Your task to perform on an android device: Add "razer deathadder" to the cart on ebay, then select checkout. Image 0: 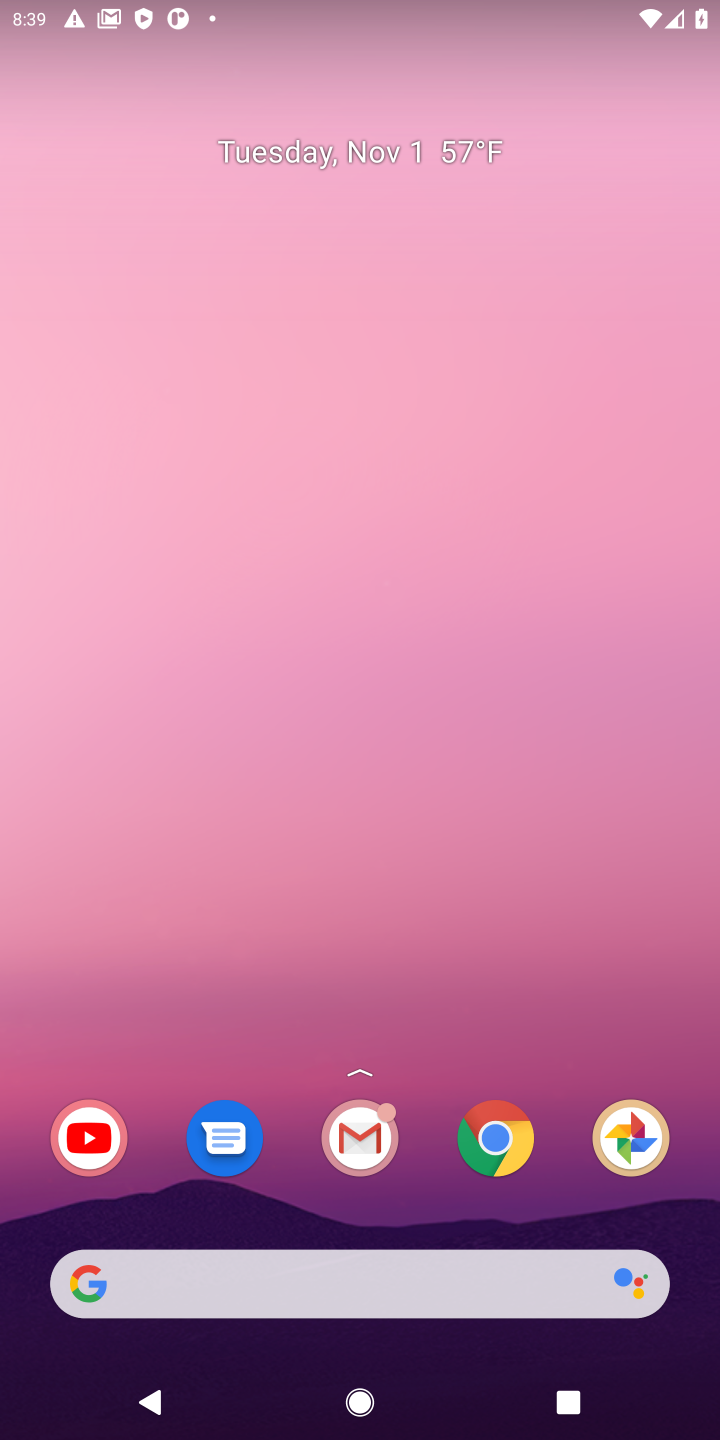
Step 0: click (498, 1128)
Your task to perform on an android device: Add "razer deathadder" to the cart on ebay, then select checkout. Image 1: 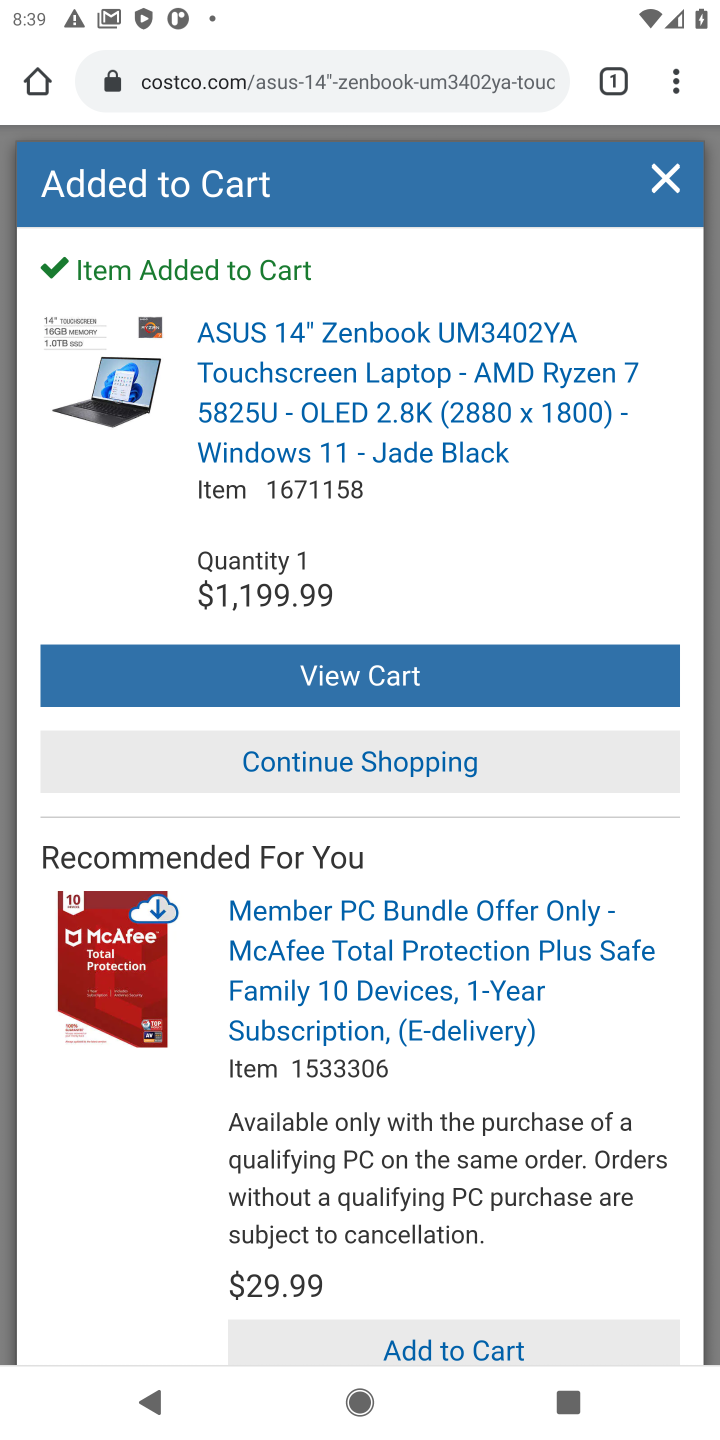
Step 1: click (273, 65)
Your task to perform on an android device: Add "razer deathadder" to the cart on ebay, then select checkout. Image 2: 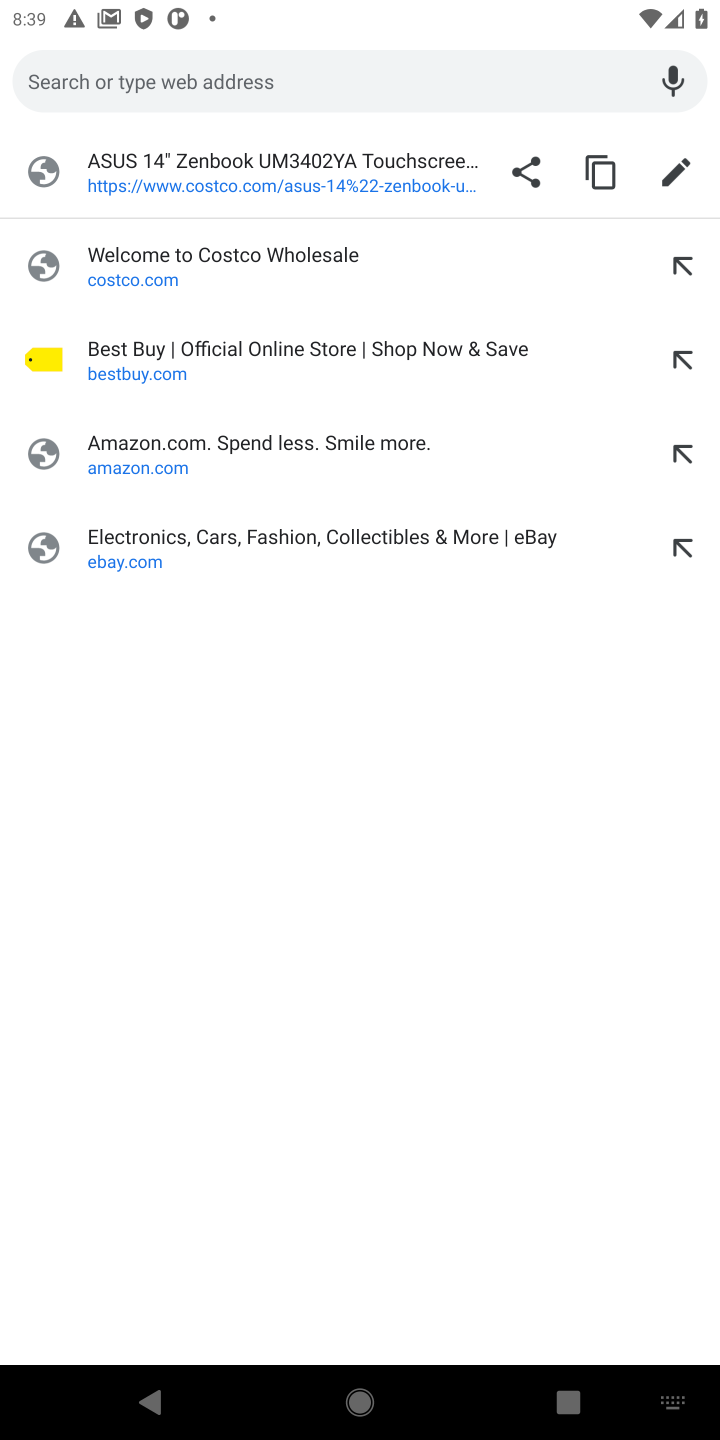
Step 2: click (111, 573)
Your task to perform on an android device: Add "razer deathadder" to the cart on ebay, then select checkout. Image 3: 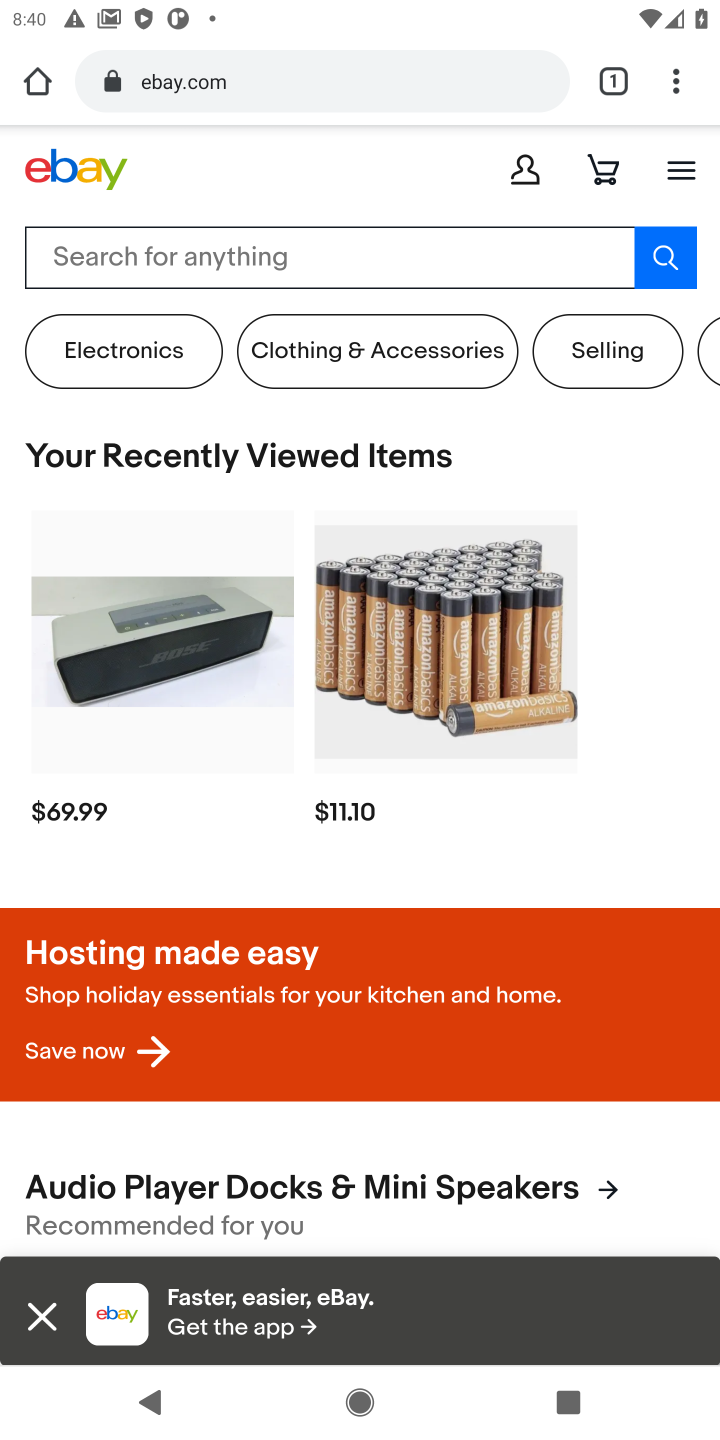
Step 3: click (307, 255)
Your task to perform on an android device: Add "razer deathadder" to the cart on ebay, then select checkout. Image 4: 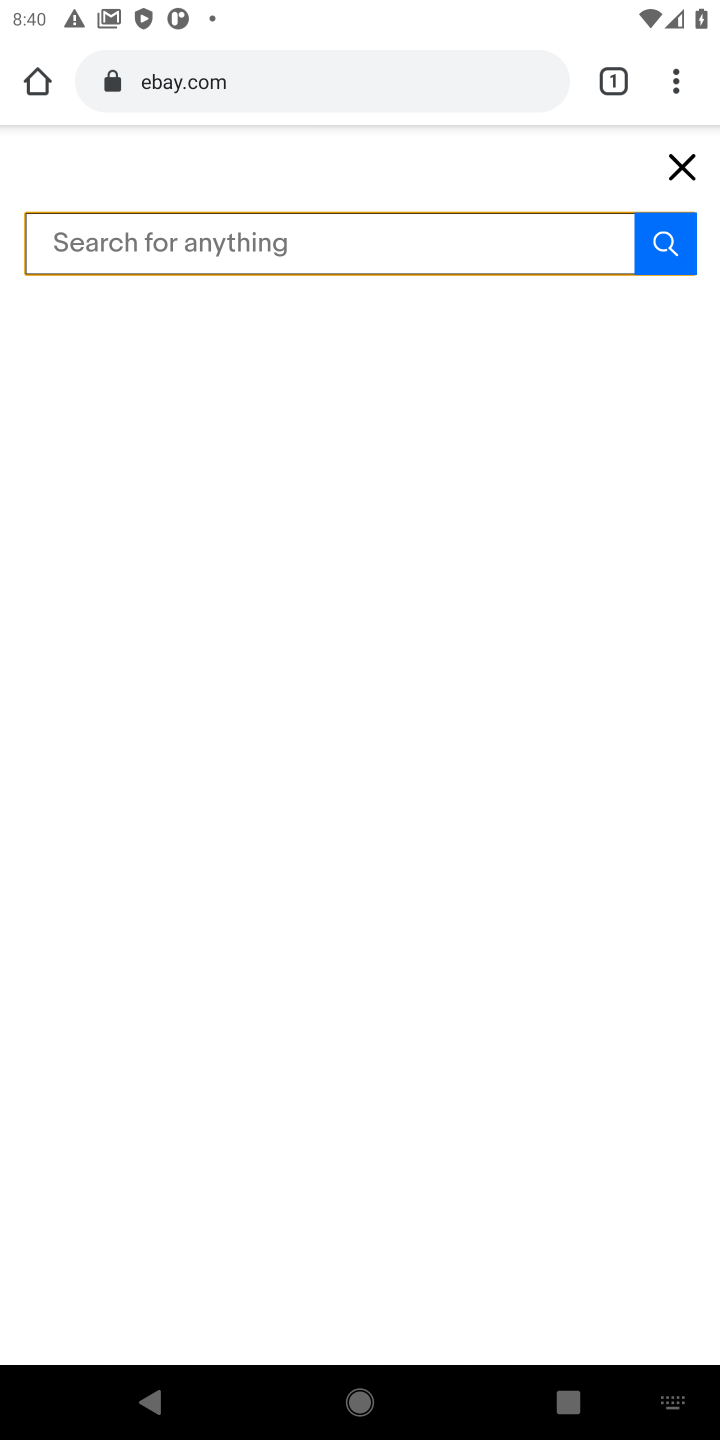
Step 4: type "razer deathadder"
Your task to perform on an android device: Add "razer deathadder" to the cart on ebay, then select checkout. Image 5: 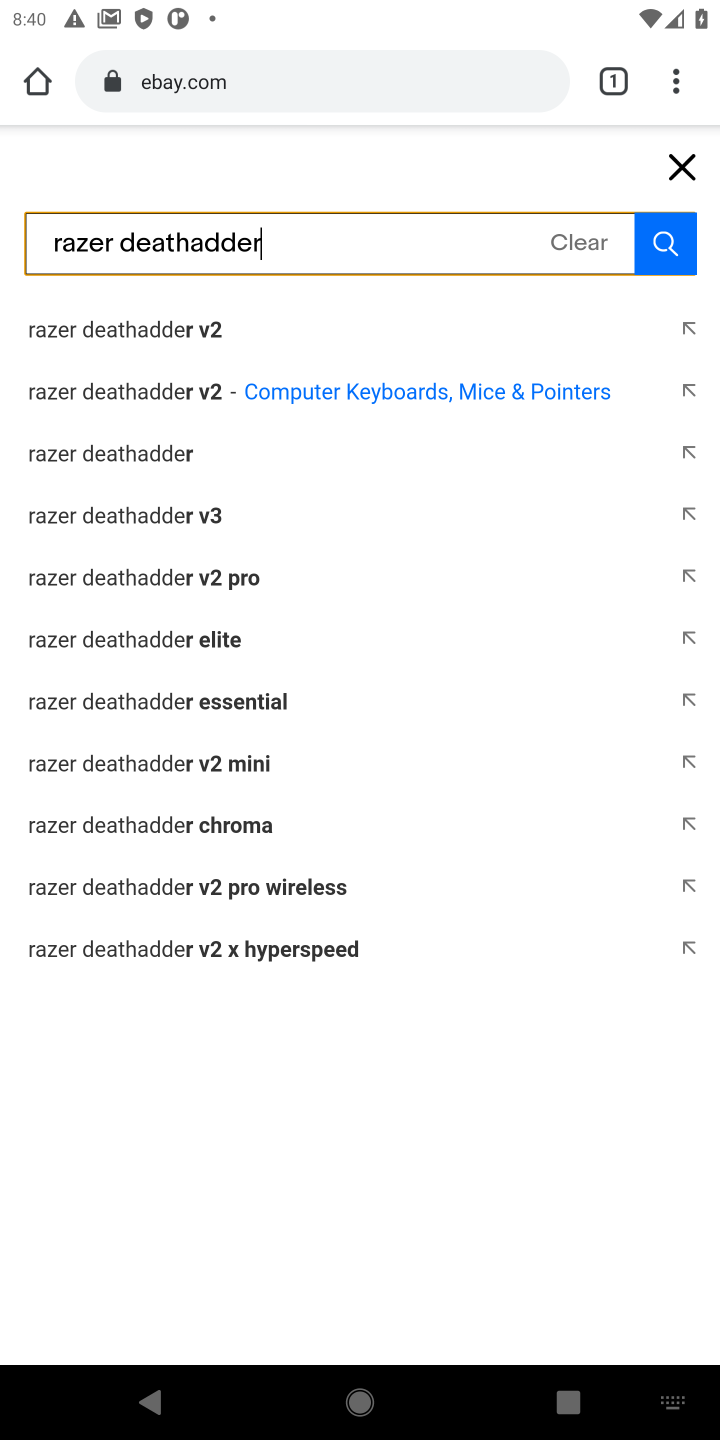
Step 5: click (141, 458)
Your task to perform on an android device: Add "razer deathadder" to the cart on ebay, then select checkout. Image 6: 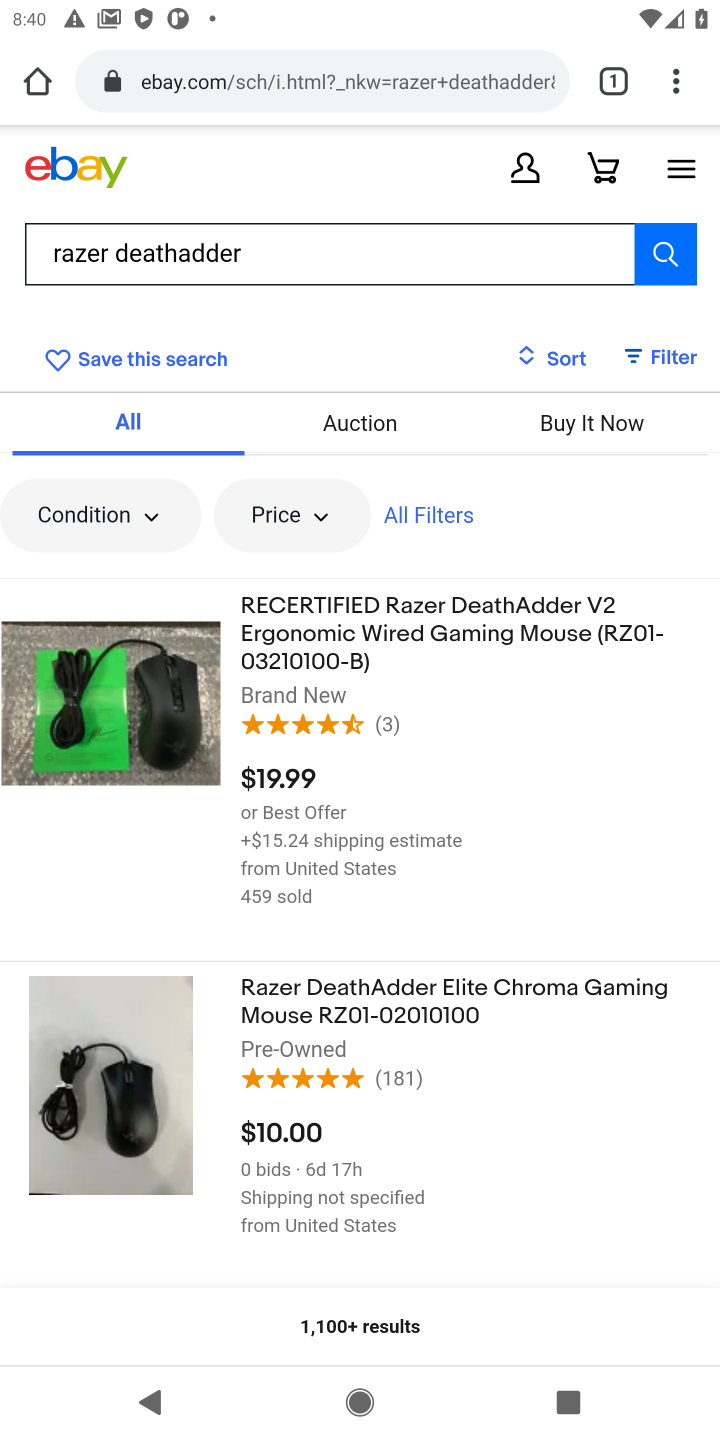
Step 6: click (274, 699)
Your task to perform on an android device: Add "razer deathadder" to the cart on ebay, then select checkout. Image 7: 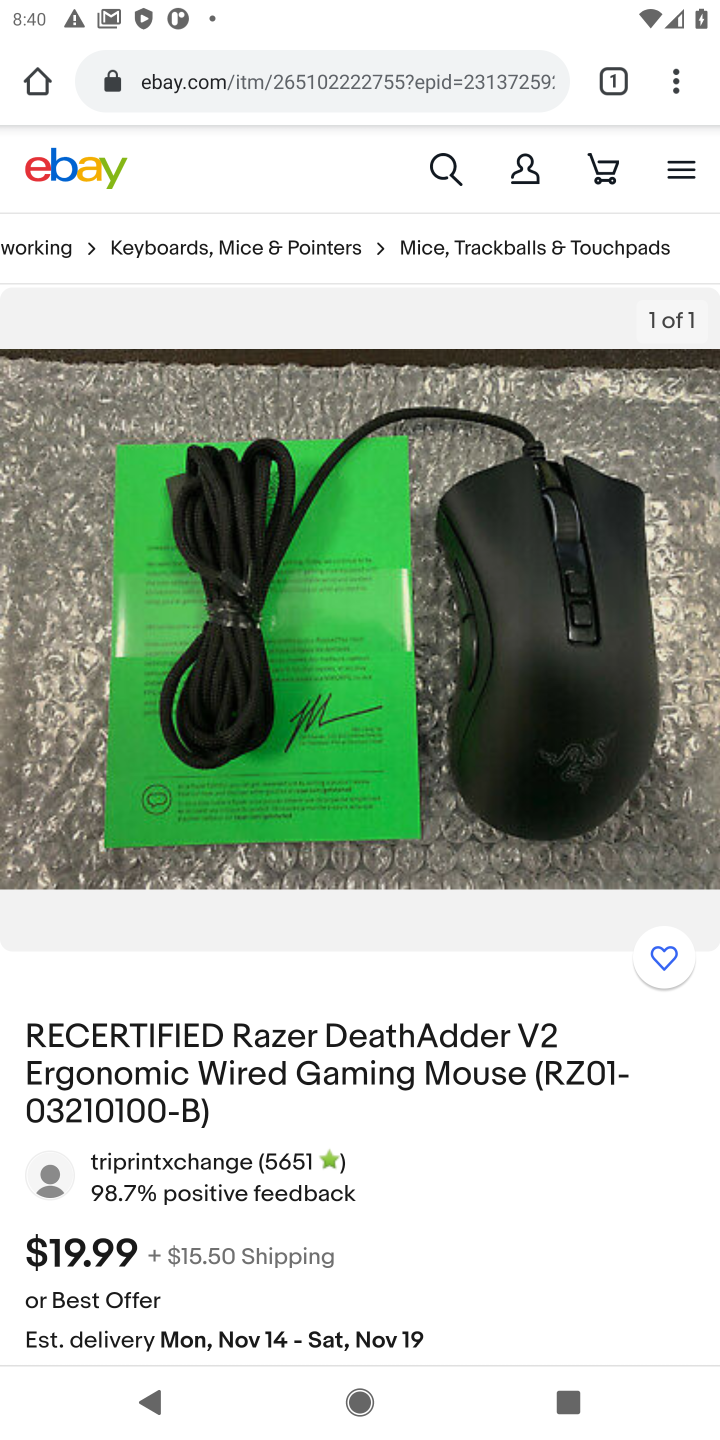
Step 7: drag from (331, 1059) to (311, 474)
Your task to perform on an android device: Add "razer deathadder" to the cart on ebay, then select checkout. Image 8: 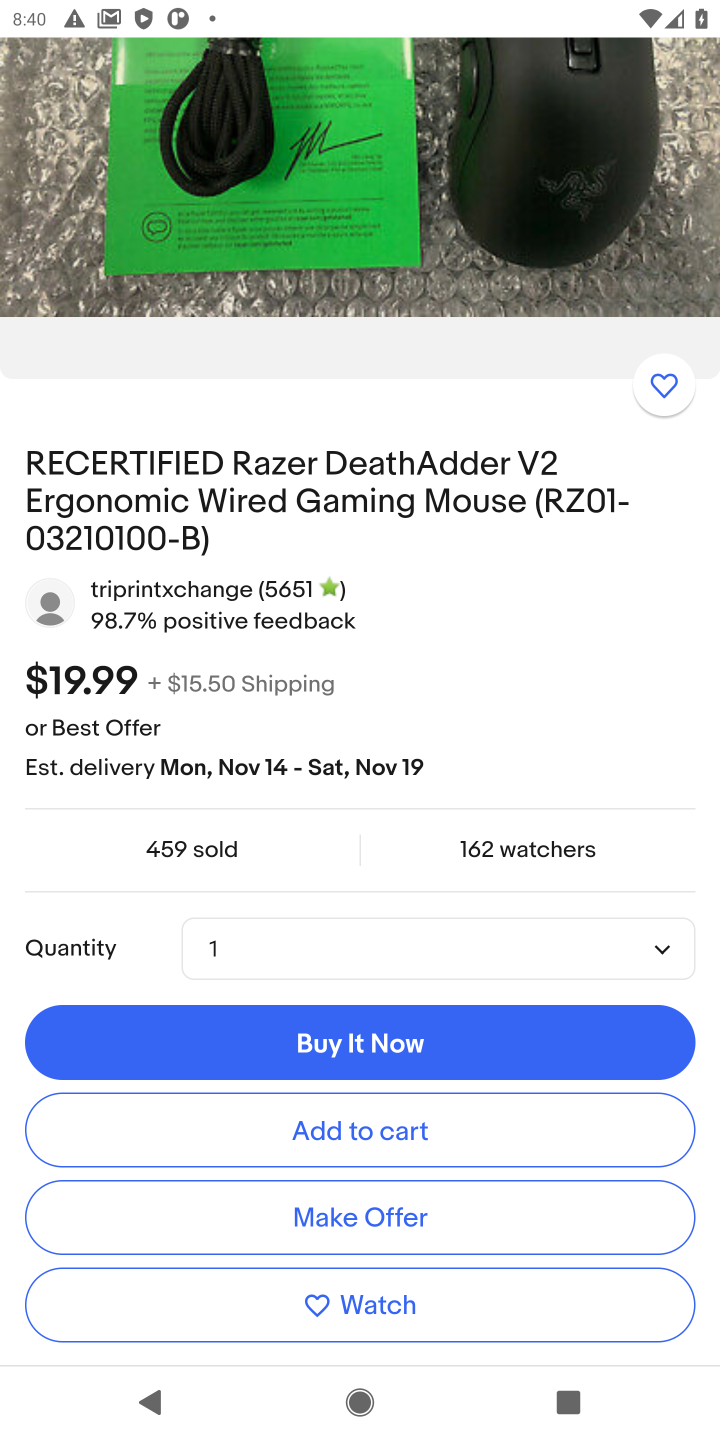
Step 8: click (332, 1130)
Your task to perform on an android device: Add "razer deathadder" to the cart on ebay, then select checkout. Image 9: 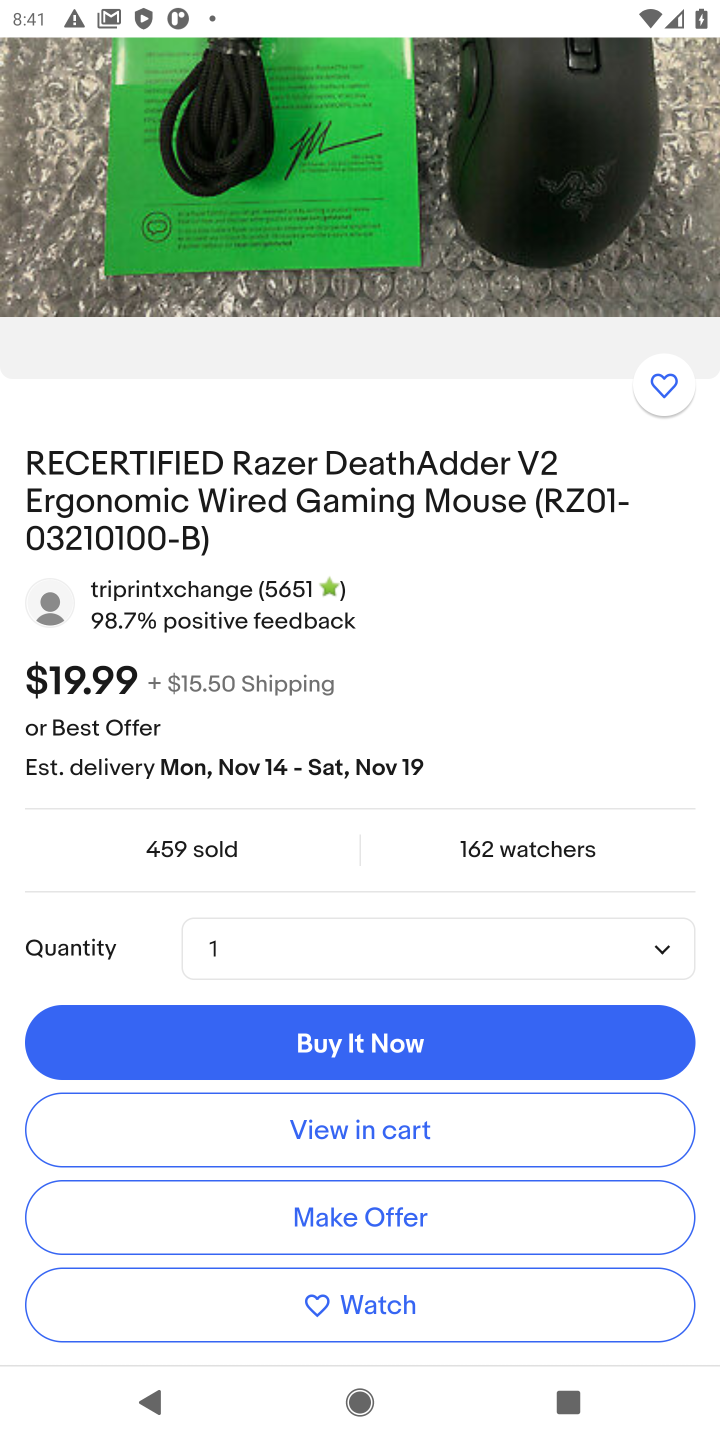
Step 9: click (332, 1130)
Your task to perform on an android device: Add "razer deathadder" to the cart on ebay, then select checkout. Image 10: 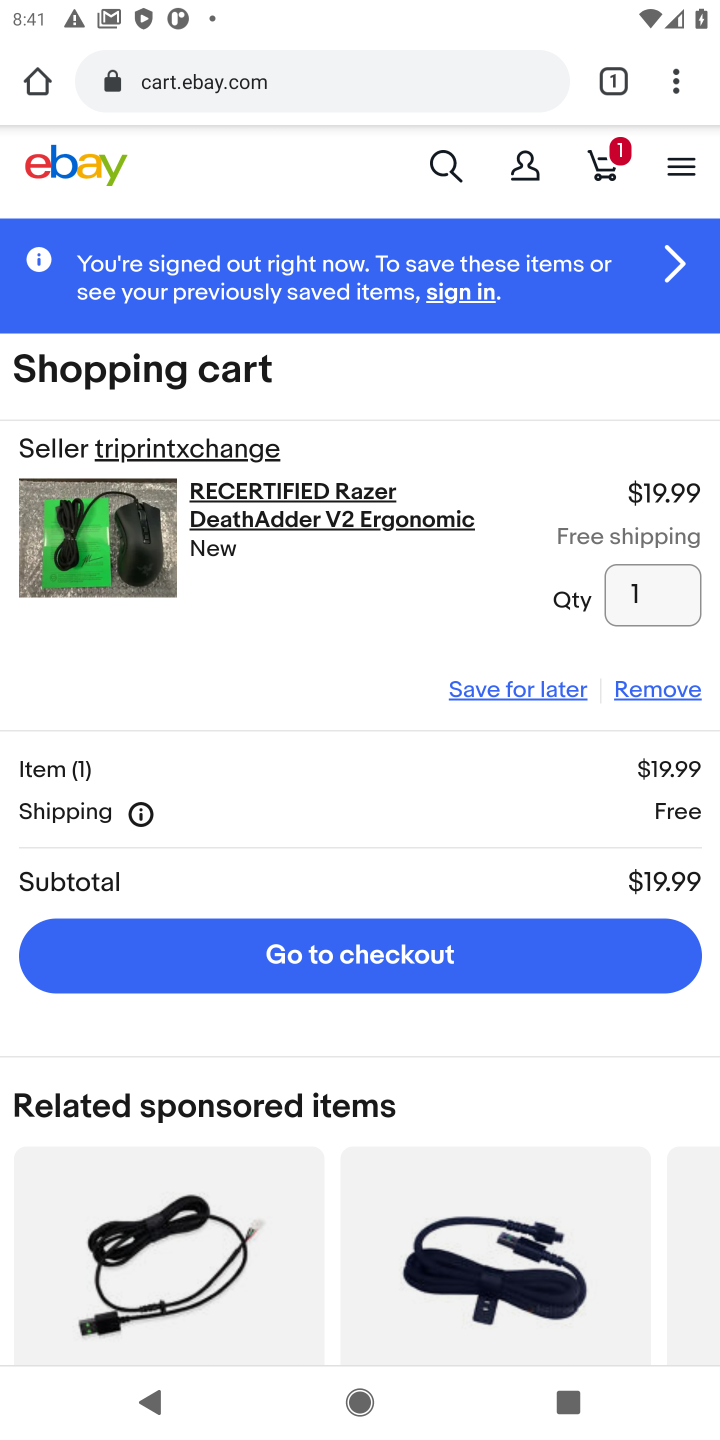
Step 10: click (336, 970)
Your task to perform on an android device: Add "razer deathadder" to the cart on ebay, then select checkout. Image 11: 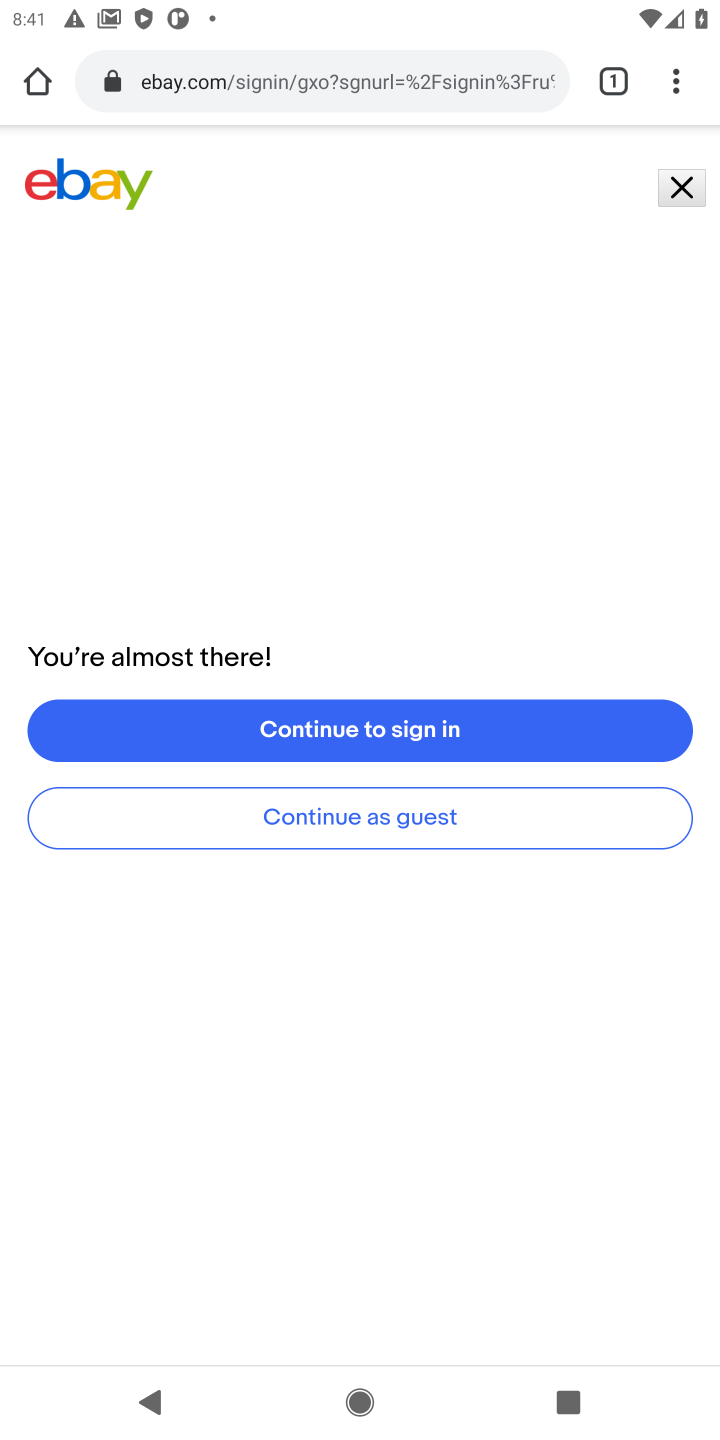
Step 11: task complete